Your task to perform on an android device: open a bookmark in the chrome app Image 0: 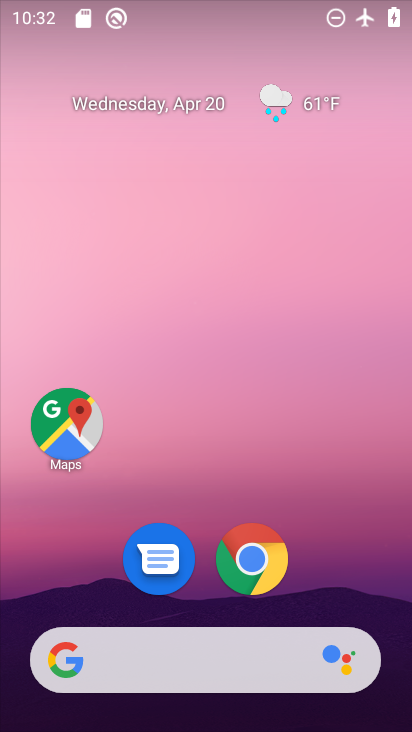
Step 0: click (248, 557)
Your task to perform on an android device: open a bookmark in the chrome app Image 1: 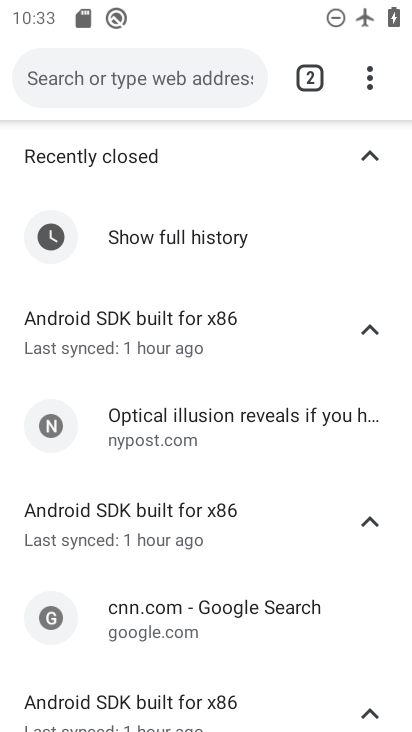
Step 1: click (367, 82)
Your task to perform on an android device: open a bookmark in the chrome app Image 2: 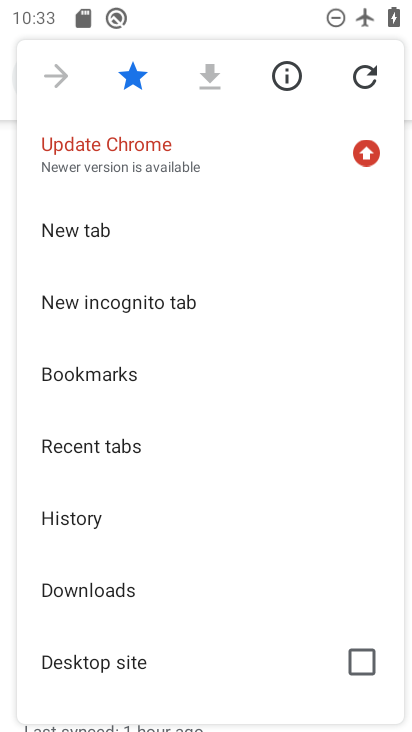
Step 2: click (77, 374)
Your task to perform on an android device: open a bookmark in the chrome app Image 3: 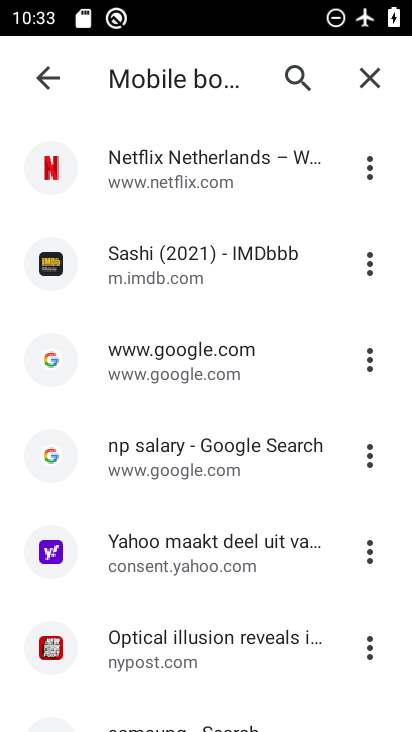
Step 3: task complete